Your task to perform on an android device: Search for Mexican restaurants on Maps Image 0: 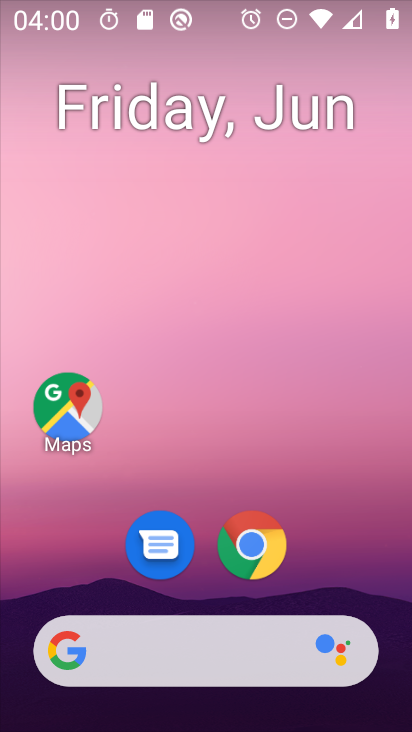
Step 0: click (58, 399)
Your task to perform on an android device: Search for Mexican restaurants on Maps Image 1: 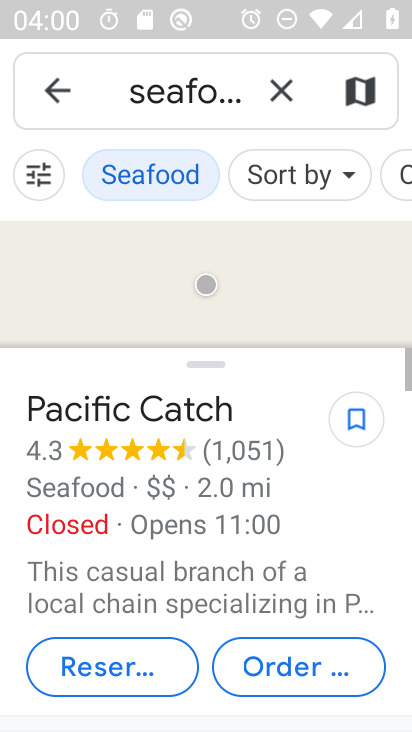
Step 1: click (280, 87)
Your task to perform on an android device: Search for Mexican restaurants on Maps Image 2: 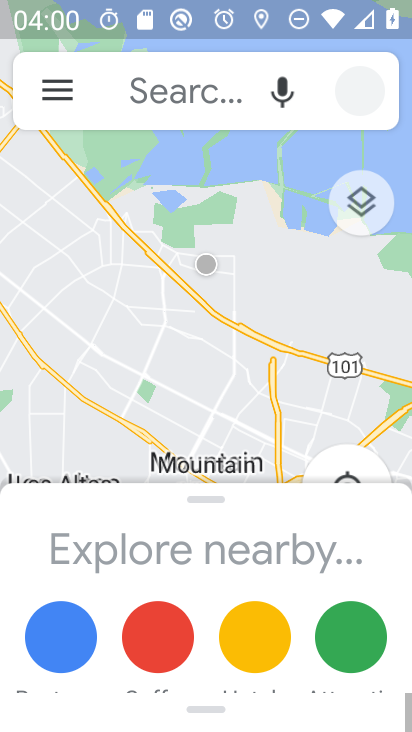
Step 2: click (210, 96)
Your task to perform on an android device: Search for Mexican restaurants on Maps Image 3: 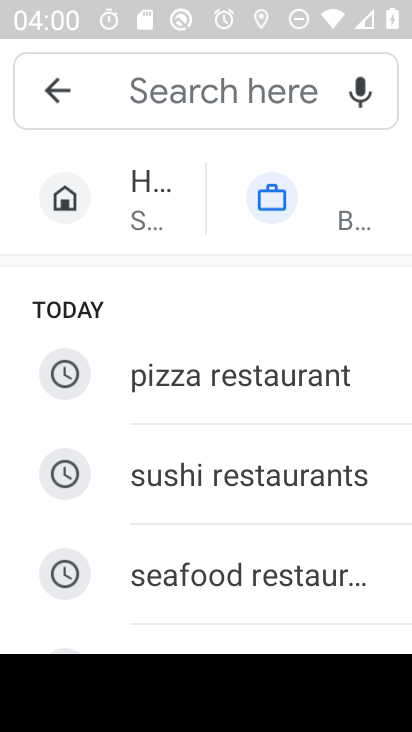
Step 3: type "mexican restaurants"
Your task to perform on an android device: Search for Mexican restaurants on Maps Image 4: 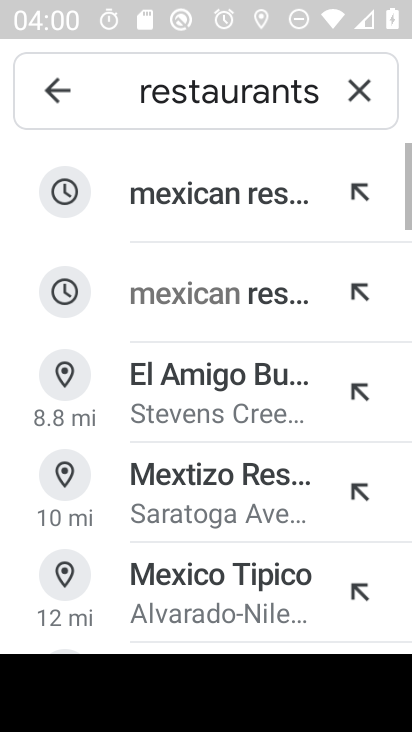
Step 4: click (263, 180)
Your task to perform on an android device: Search for Mexican restaurants on Maps Image 5: 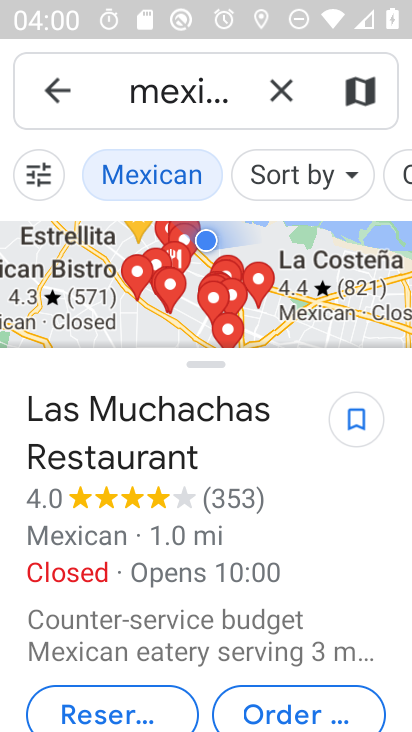
Step 5: task complete